Your task to perform on an android device: toggle data saver in the chrome app Image 0: 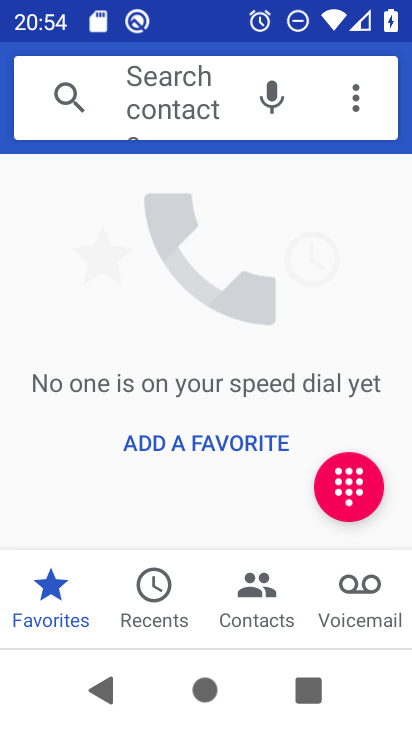
Step 0: press home button
Your task to perform on an android device: toggle data saver in the chrome app Image 1: 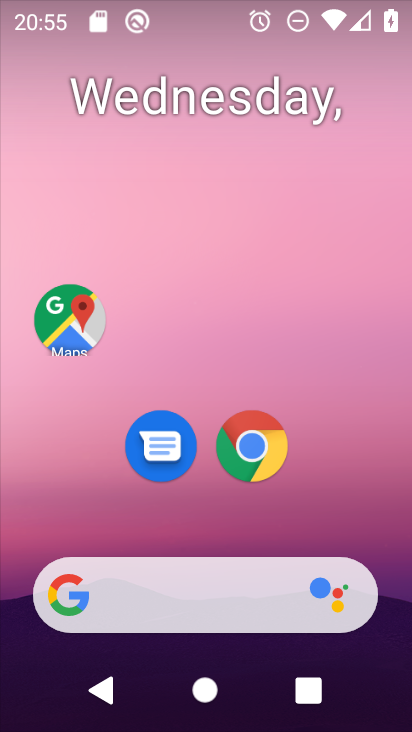
Step 1: click (246, 464)
Your task to perform on an android device: toggle data saver in the chrome app Image 2: 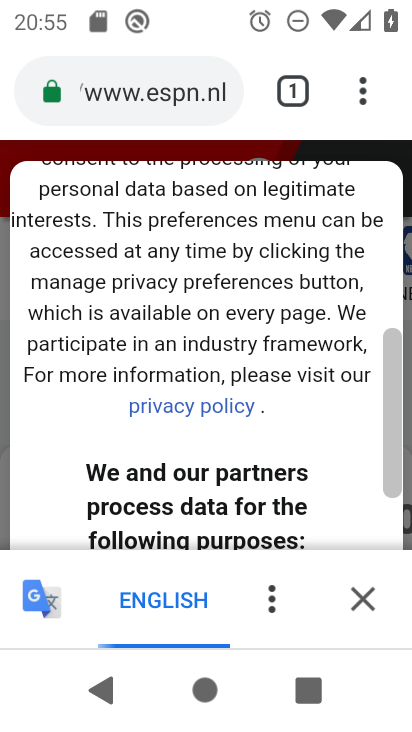
Step 2: drag from (365, 107) to (100, 465)
Your task to perform on an android device: toggle data saver in the chrome app Image 3: 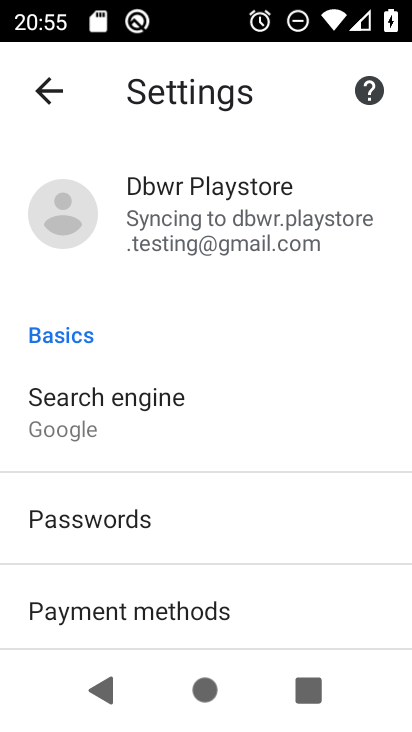
Step 3: drag from (159, 232) to (11, 209)
Your task to perform on an android device: toggle data saver in the chrome app Image 4: 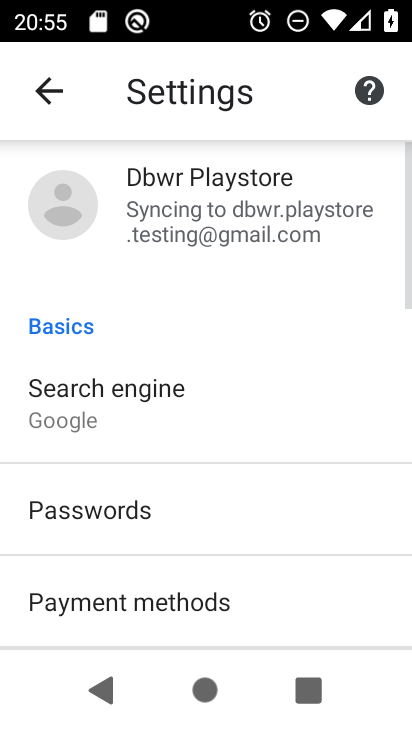
Step 4: drag from (164, 575) to (215, 261)
Your task to perform on an android device: toggle data saver in the chrome app Image 5: 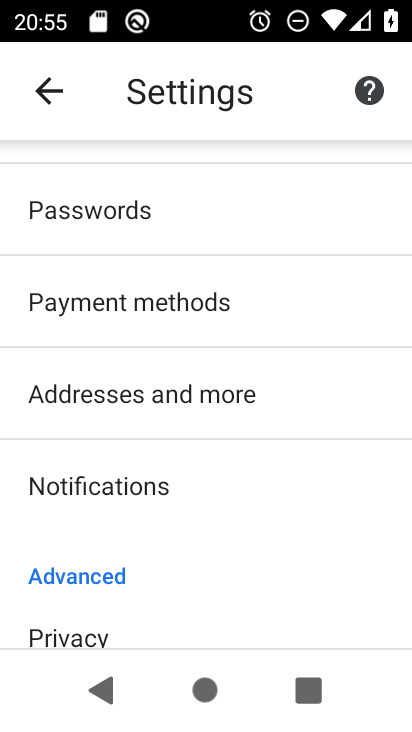
Step 5: drag from (180, 503) to (137, 172)
Your task to perform on an android device: toggle data saver in the chrome app Image 6: 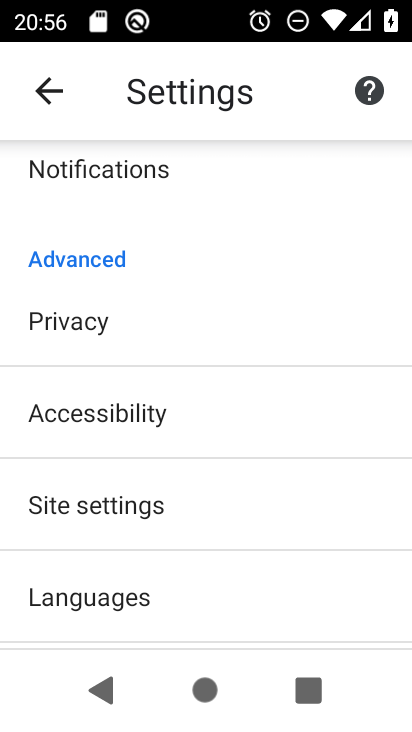
Step 6: drag from (175, 582) to (152, 10)
Your task to perform on an android device: toggle data saver in the chrome app Image 7: 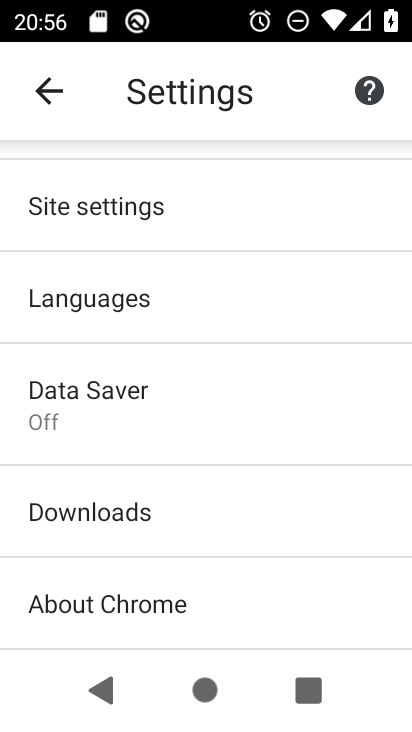
Step 7: click (104, 393)
Your task to perform on an android device: toggle data saver in the chrome app Image 8: 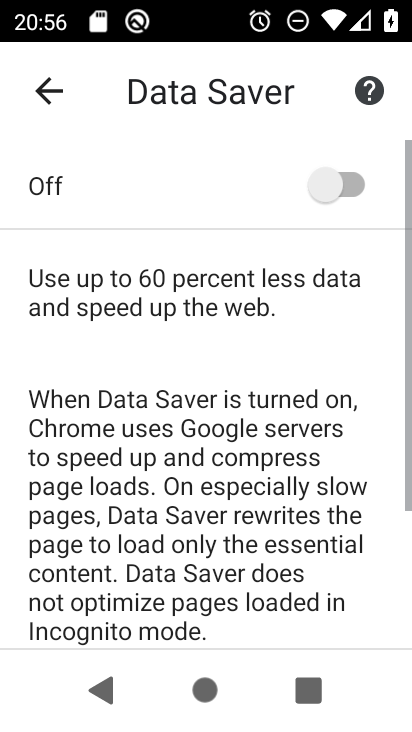
Step 8: drag from (104, 393) to (329, 181)
Your task to perform on an android device: toggle data saver in the chrome app Image 9: 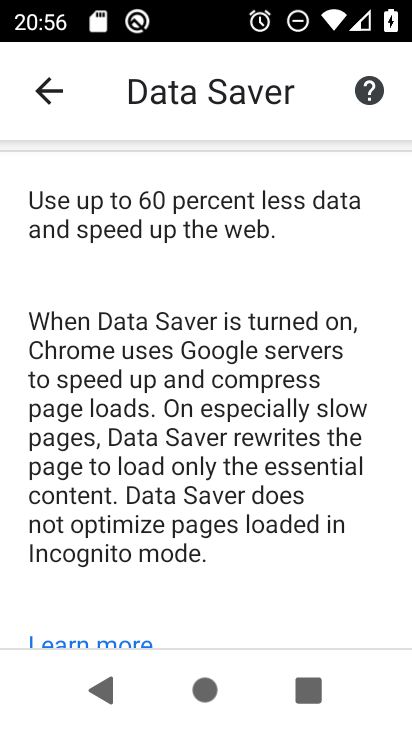
Step 9: drag from (329, 181) to (298, 542)
Your task to perform on an android device: toggle data saver in the chrome app Image 10: 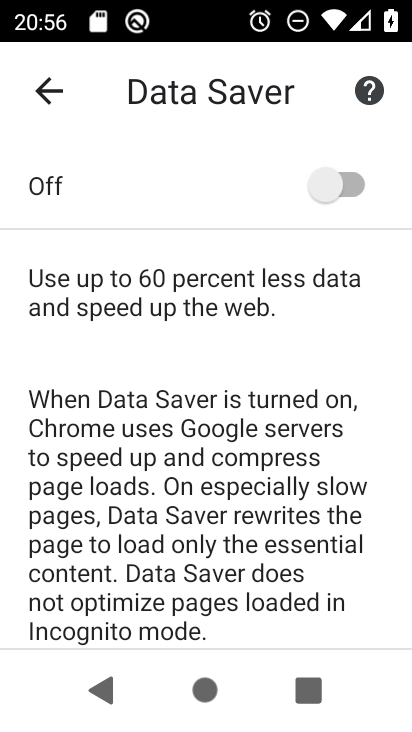
Step 10: click (314, 173)
Your task to perform on an android device: toggle data saver in the chrome app Image 11: 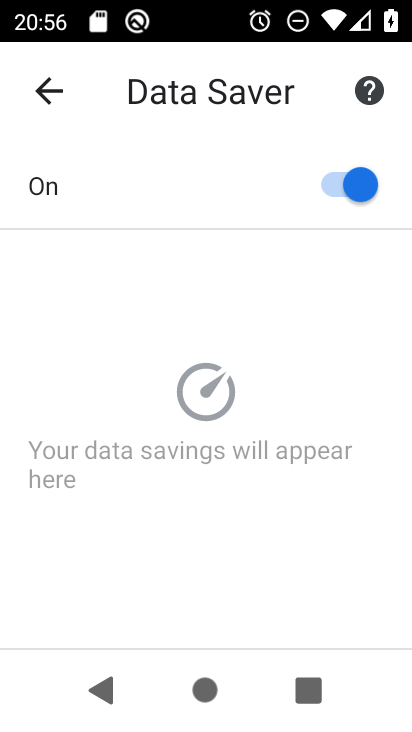
Step 11: task complete